Your task to perform on an android device: Open the map Image 0: 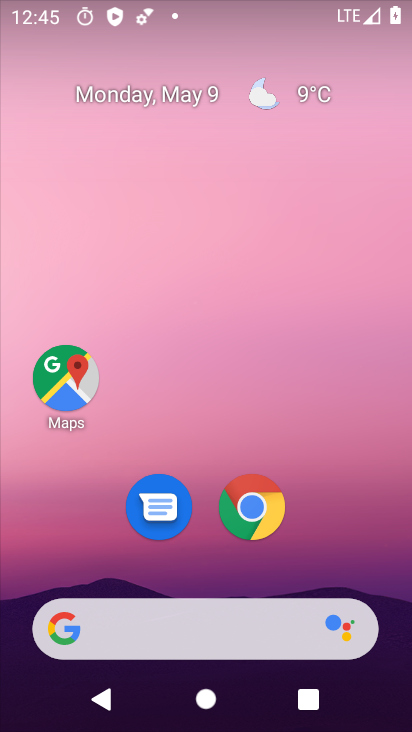
Step 0: drag from (227, 727) to (215, 79)
Your task to perform on an android device: Open the map Image 1: 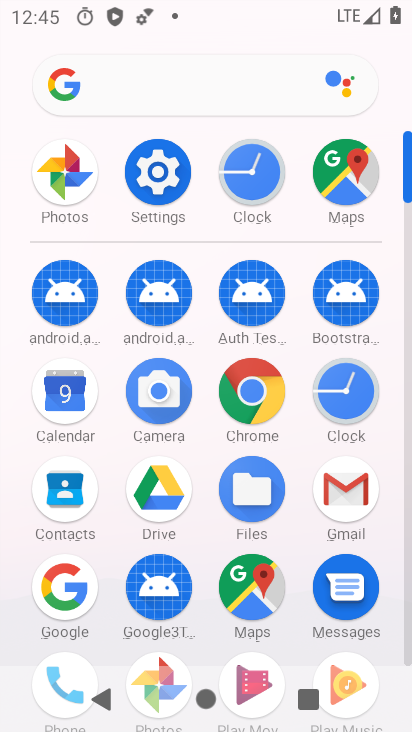
Step 1: click (255, 597)
Your task to perform on an android device: Open the map Image 2: 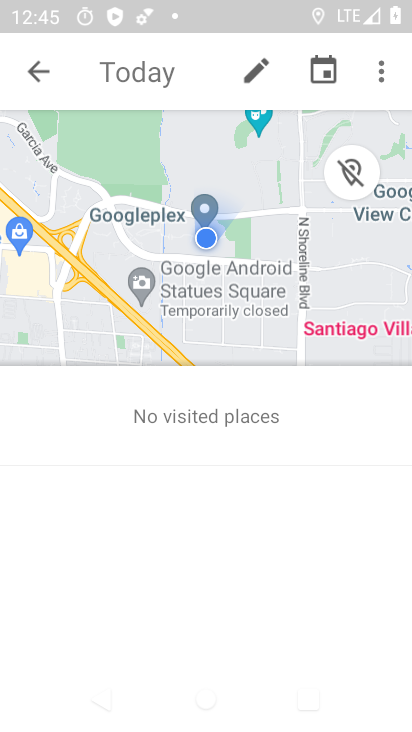
Step 2: task complete